Your task to perform on an android device: Open notification settings Image 0: 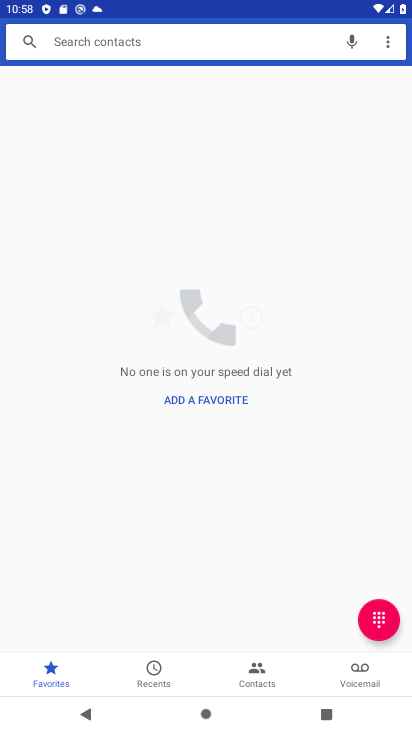
Step 0: press home button
Your task to perform on an android device: Open notification settings Image 1: 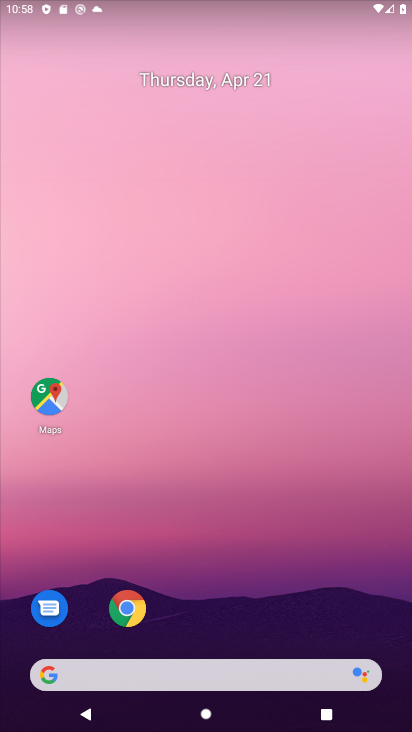
Step 1: drag from (235, 543) to (247, 46)
Your task to perform on an android device: Open notification settings Image 2: 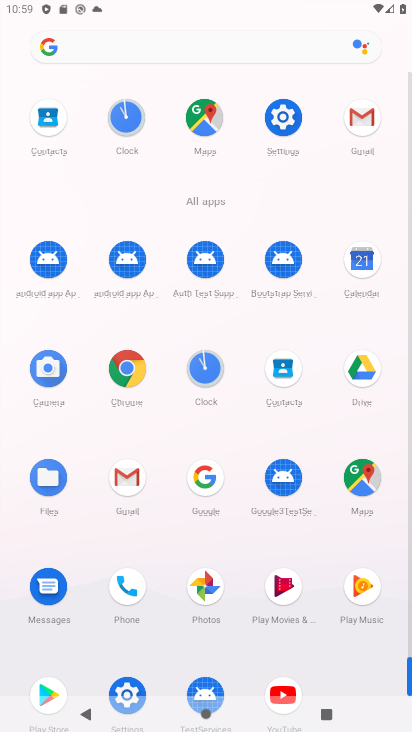
Step 2: click (285, 116)
Your task to perform on an android device: Open notification settings Image 3: 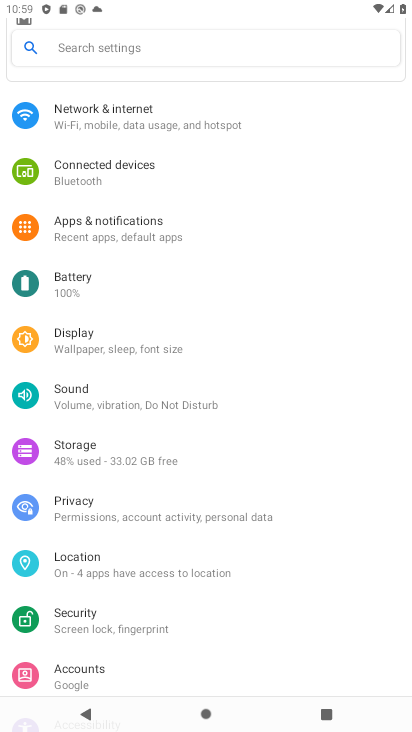
Step 3: click (144, 224)
Your task to perform on an android device: Open notification settings Image 4: 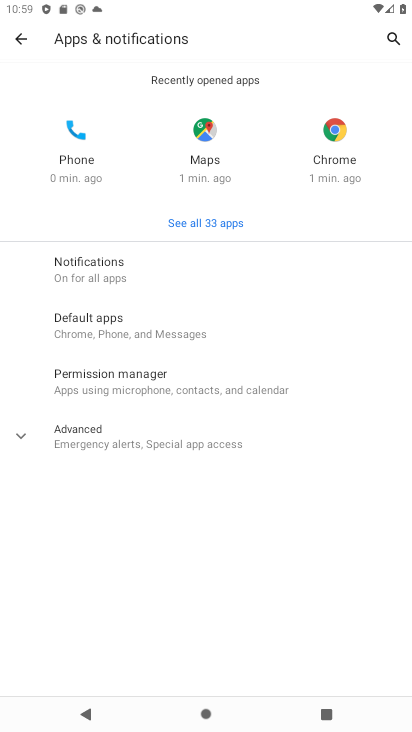
Step 4: click (114, 262)
Your task to perform on an android device: Open notification settings Image 5: 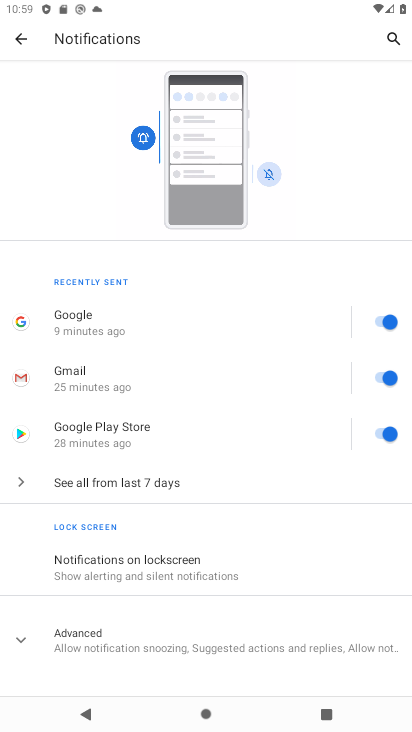
Step 5: task complete